Your task to perform on an android device: turn on data saver in the chrome app Image 0: 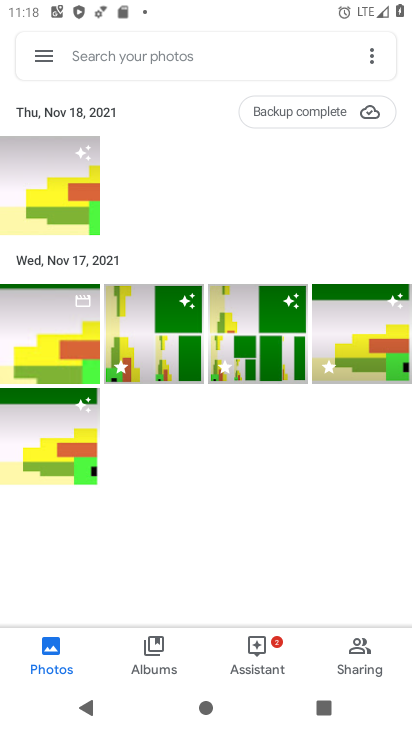
Step 0: press home button
Your task to perform on an android device: turn on data saver in the chrome app Image 1: 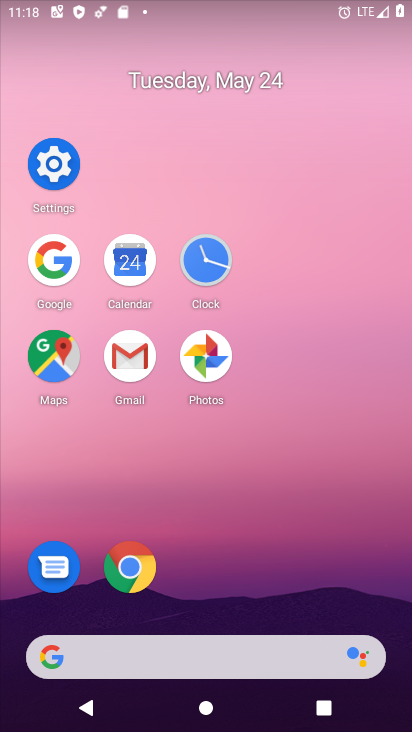
Step 1: click (124, 566)
Your task to perform on an android device: turn on data saver in the chrome app Image 2: 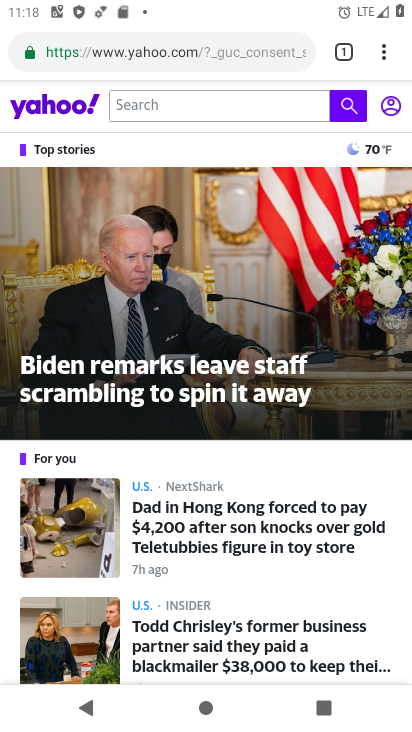
Step 2: click (384, 45)
Your task to perform on an android device: turn on data saver in the chrome app Image 3: 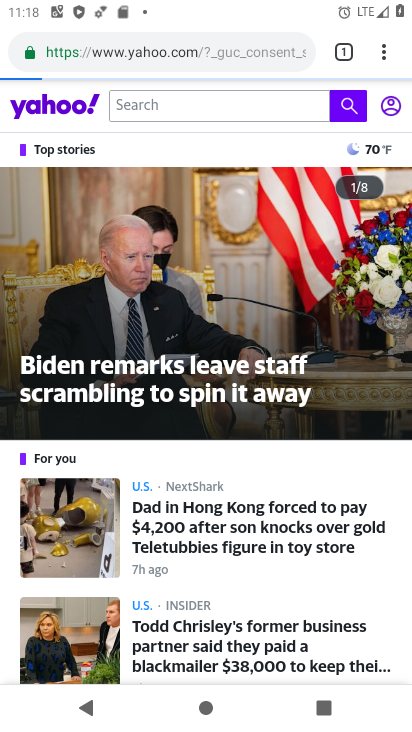
Step 3: click (375, 61)
Your task to perform on an android device: turn on data saver in the chrome app Image 4: 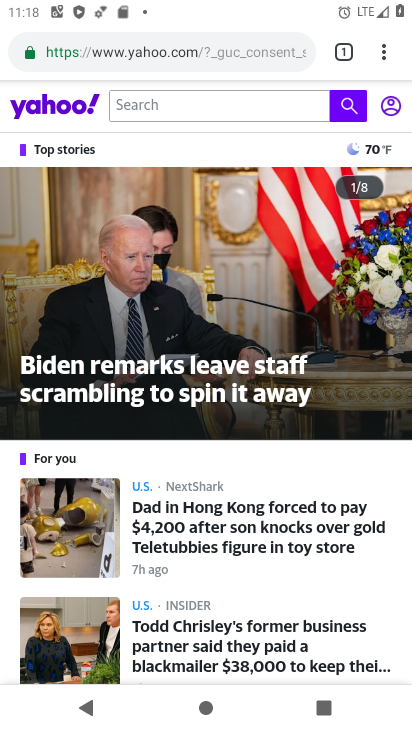
Step 4: click (385, 50)
Your task to perform on an android device: turn on data saver in the chrome app Image 5: 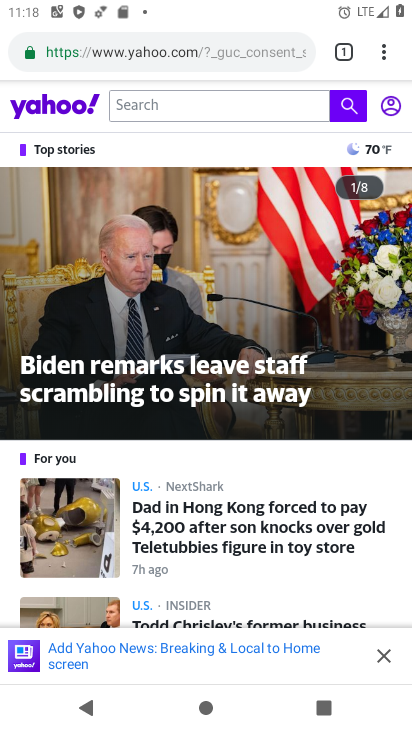
Step 5: click (392, 54)
Your task to perform on an android device: turn on data saver in the chrome app Image 6: 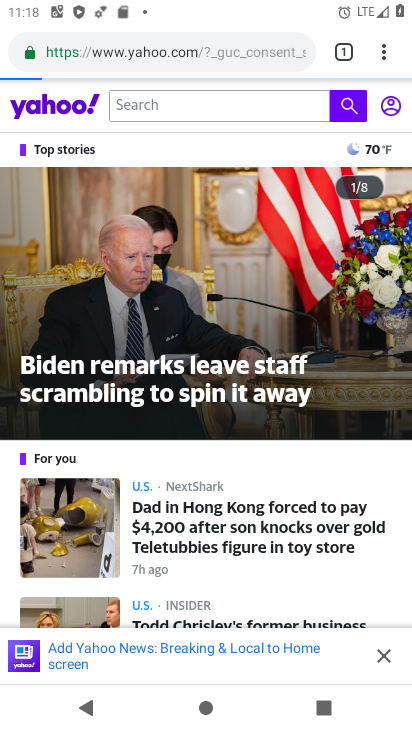
Step 6: click (388, 67)
Your task to perform on an android device: turn on data saver in the chrome app Image 7: 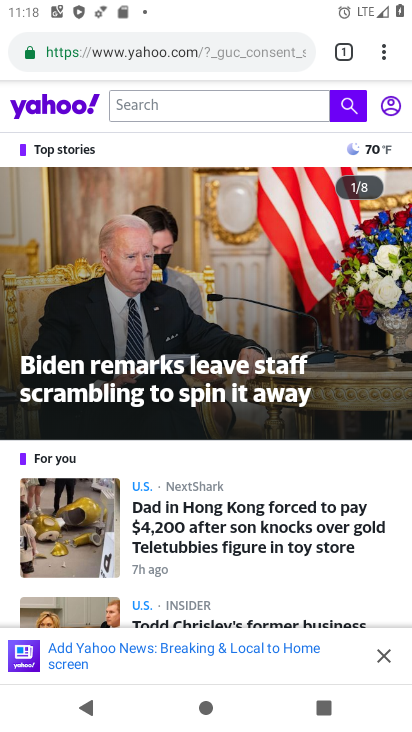
Step 7: click (375, 56)
Your task to perform on an android device: turn on data saver in the chrome app Image 8: 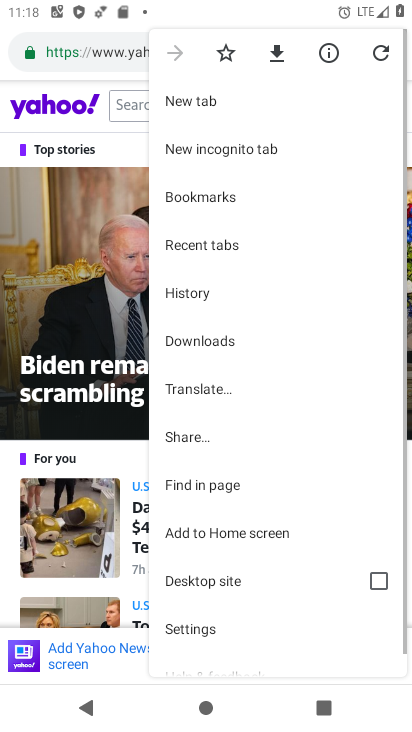
Step 8: drag from (230, 457) to (278, 206)
Your task to perform on an android device: turn on data saver in the chrome app Image 9: 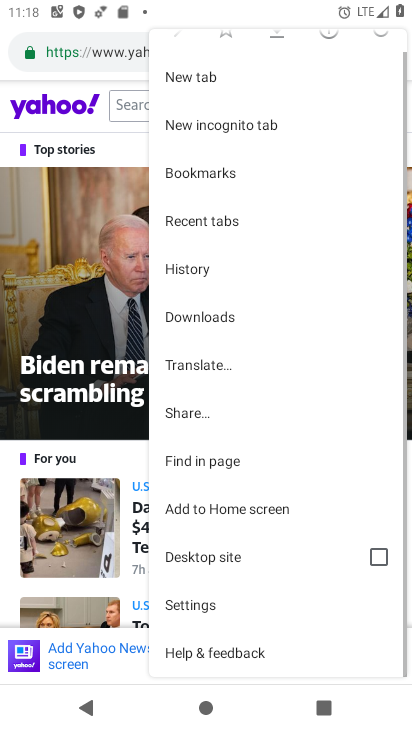
Step 9: drag from (269, 571) to (301, 216)
Your task to perform on an android device: turn on data saver in the chrome app Image 10: 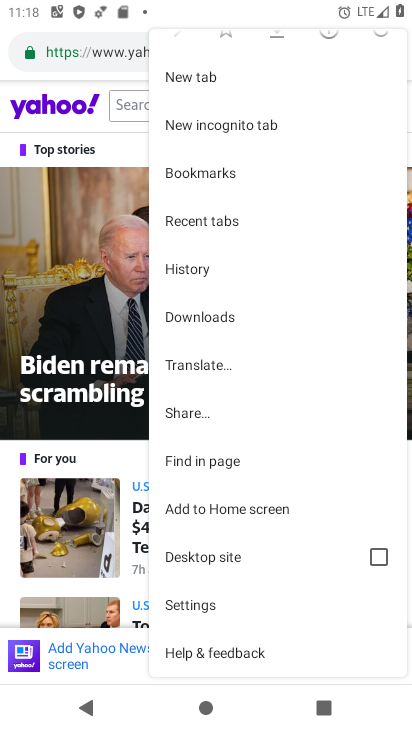
Step 10: click (194, 615)
Your task to perform on an android device: turn on data saver in the chrome app Image 11: 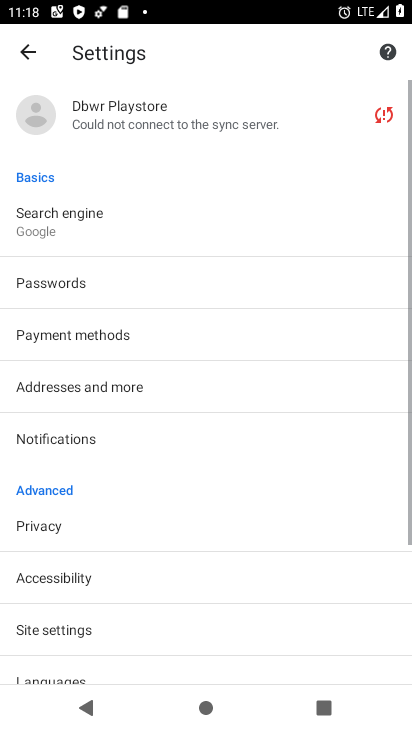
Step 11: drag from (191, 583) to (266, 210)
Your task to perform on an android device: turn on data saver in the chrome app Image 12: 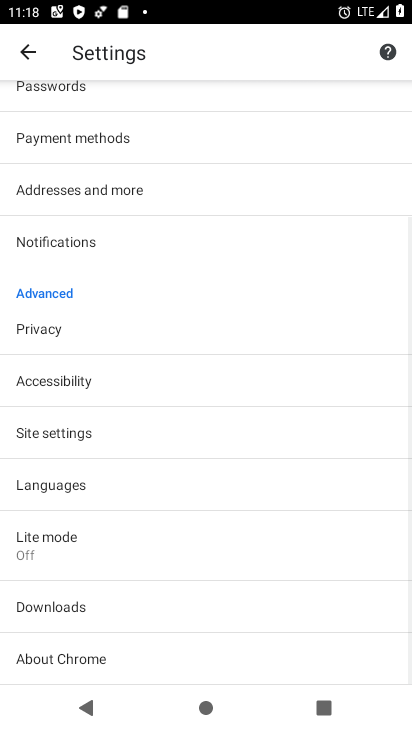
Step 12: click (114, 548)
Your task to perform on an android device: turn on data saver in the chrome app Image 13: 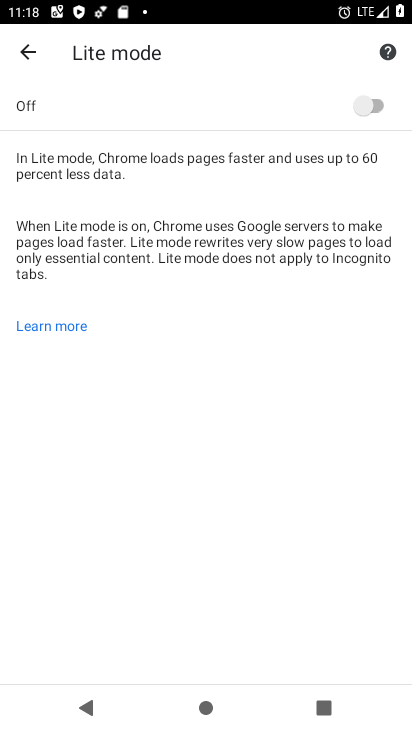
Step 13: click (367, 111)
Your task to perform on an android device: turn on data saver in the chrome app Image 14: 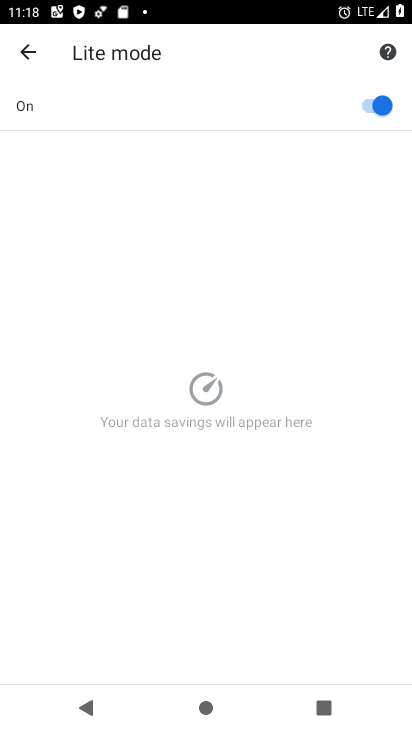
Step 14: task complete